Your task to perform on an android device: What's the weather going to be tomorrow? Image 0: 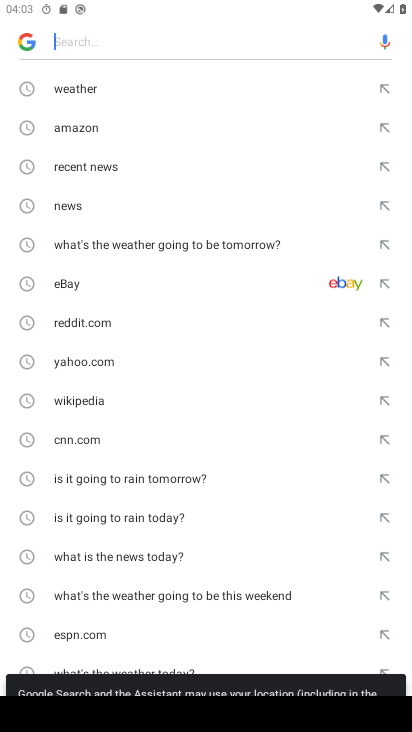
Step 0: press home button
Your task to perform on an android device: What's the weather going to be tomorrow? Image 1: 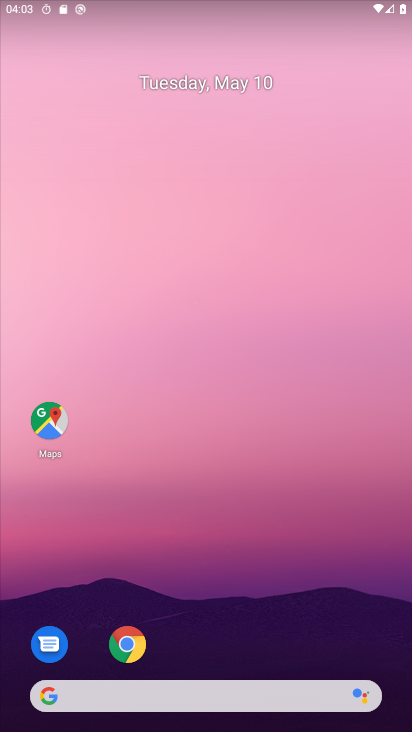
Step 1: drag from (200, 665) to (290, 176)
Your task to perform on an android device: What's the weather going to be tomorrow? Image 2: 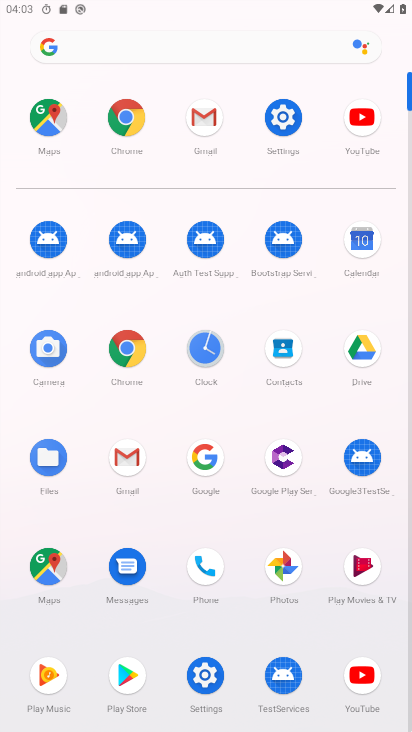
Step 2: click (353, 239)
Your task to perform on an android device: What's the weather going to be tomorrow? Image 3: 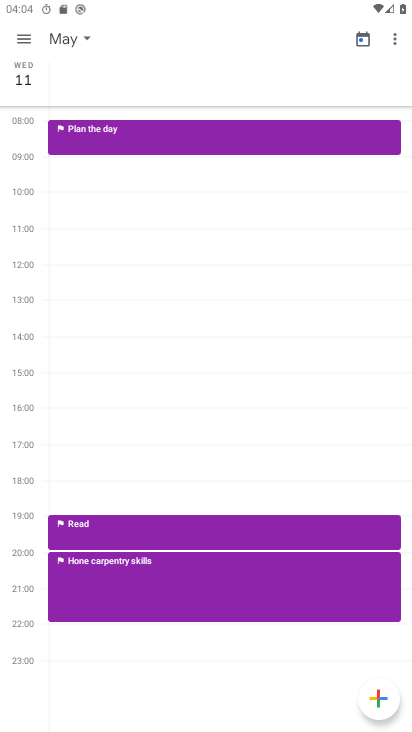
Step 3: press home button
Your task to perform on an android device: What's the weather going to be tomorrow? Image 4: 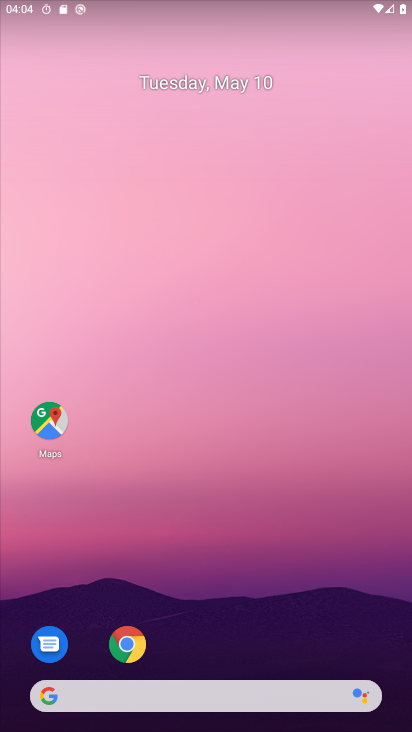
Step 4: drag from (11, 281) to (352, 295)
Your task to perform on an android device: What's the weather going to be tomorrow? Image 5: 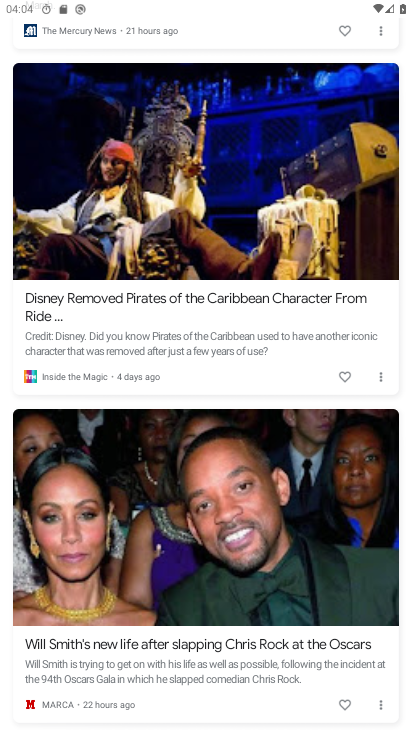
Step 5: drag from (172, 202) to (187, 728)
Your task to perform on an android device: What's the weather going to be tomorrow? Image 6: 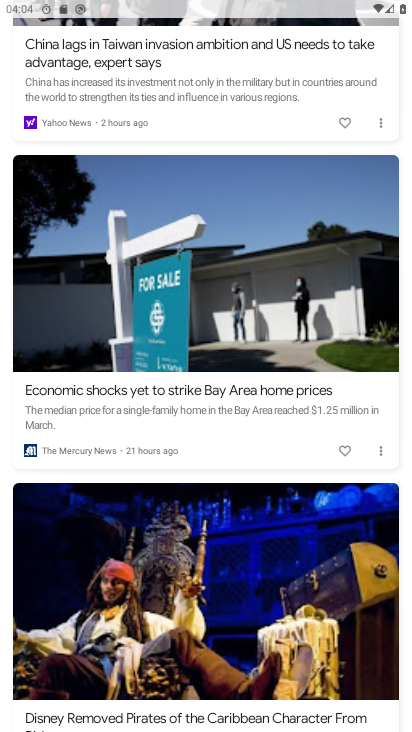
Step 6: drag from (195, 207) to (221, 722)
Your task to perform on an android device: What's the weather going to be tomorrow? Image 7: 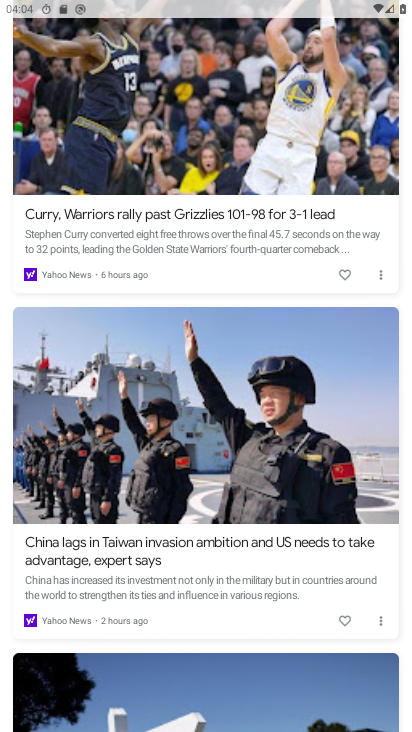
Step 7: drag from (182, 128) to (210, 714)
Your task to perform on an android device: What's the weather going to be tomorrow? Image 8: 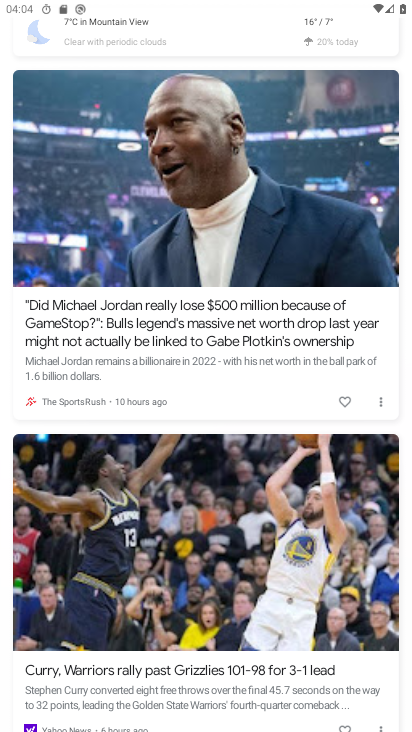
Step 8: drag from (189, 147) to (227, 615)
Your task to perform on an android device: What's the weather going to be tomorrow? Image 9: 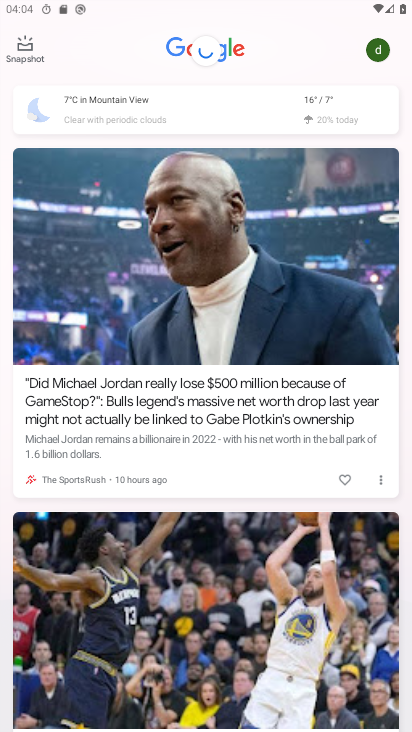
Step 9: click (281, 101)
Your task to perform on an android device: What's the weather going to be tomorrow? Image 10: 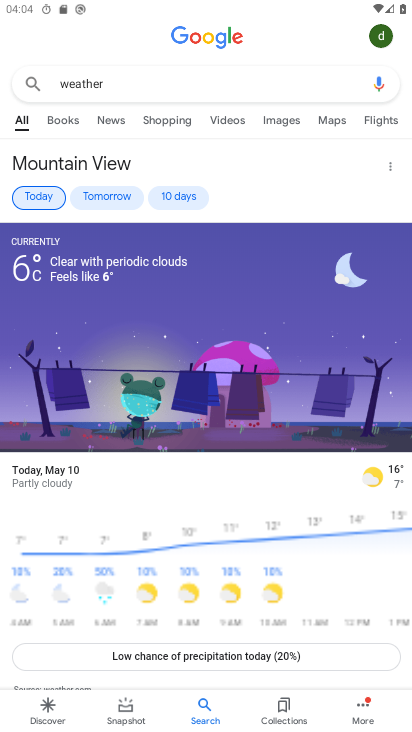
Step 10: click (111, 196)
Your task to perform on an android device: What's the weather going to be tomorrow? Image 11: 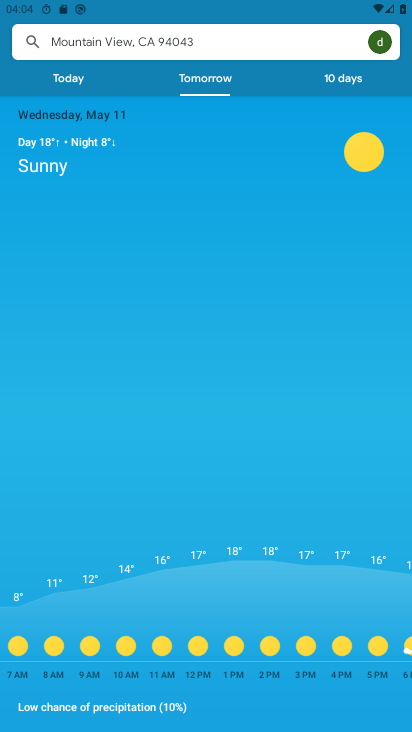
Step 11: task complete